Your task to perform on an android device: Turn on the flashlight Image 0: 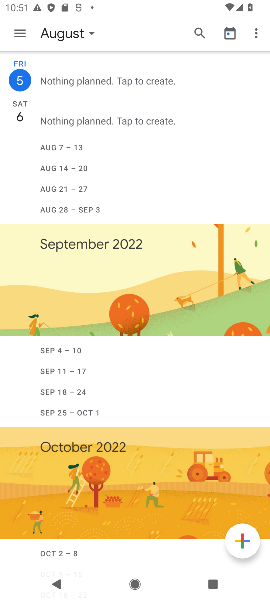
Step 0: press home button
Your task to perform on an android device: Turn on the flashlight Image 1: 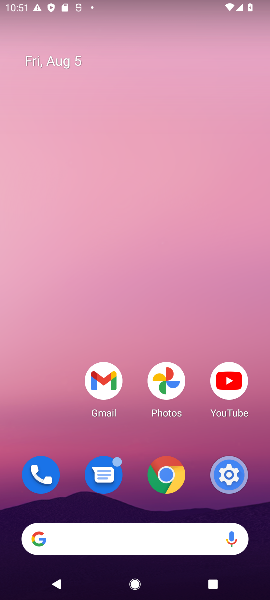
Step 1: drag from (133, 501) to (148, 211)
Your task to perform on an android device: Turn on the flashlight Image 2: 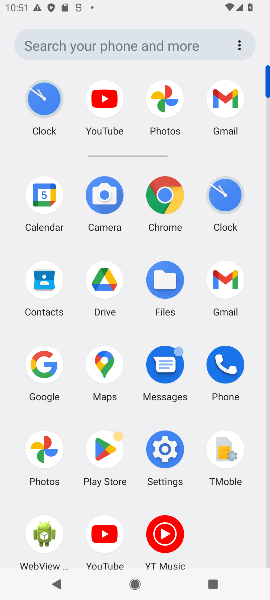
Step 2: click (175, 461)
Your task to perform on an android device: Turn on the flashlight Image 3: 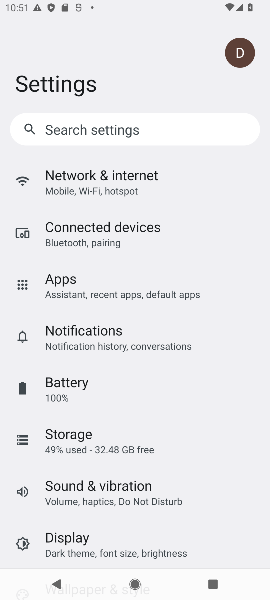
Step 3: click (118, 126)
Your task to perform on an android device: Turn on the flashlight Image 4: 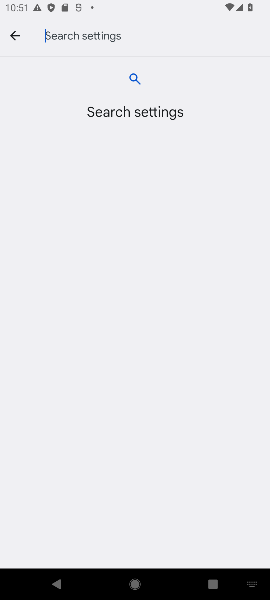
Step 4: type "flashlight"
Your task to perform on an android device: Turn on the flashlight Image 5: 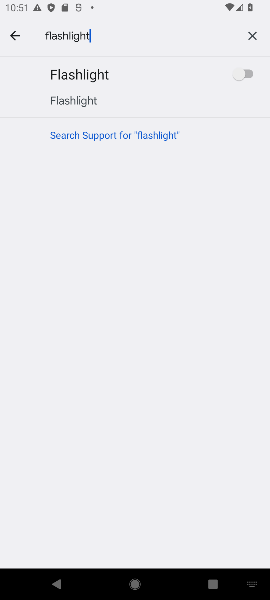
Step 5: click (92, 97)
Your task to perform on an android device: Turn on the flashlight Image 6: 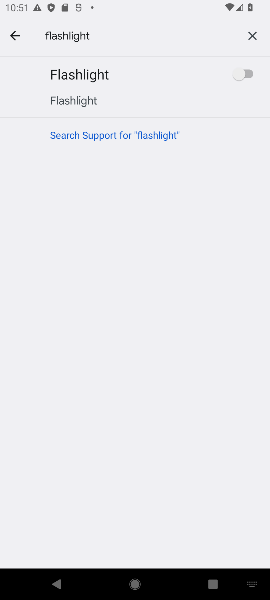
Step 6: click (251, 62)
Your task to perform on an android device: Turn on the flashlight Image 7: 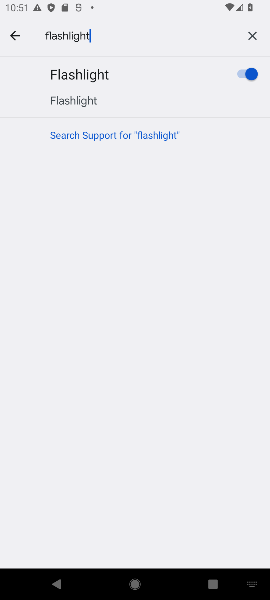
Step 7: task complete